Your task to perform on an android device: turn off airplane mode Image 0: 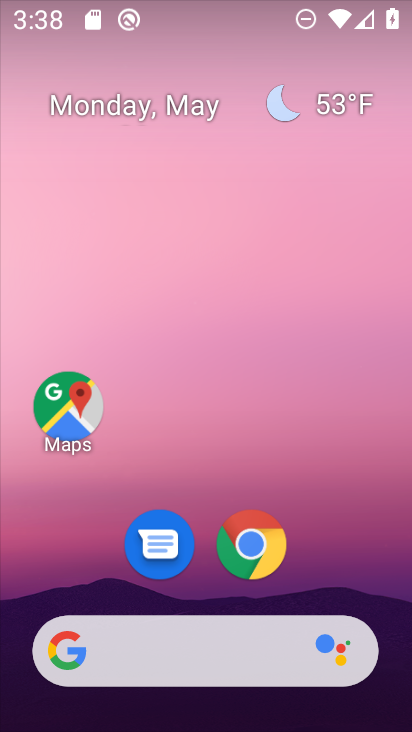
Step 0: drag from (204, 5) to (95, 648)
Your task to perform on an android device: turn off airplane mode Image 1: 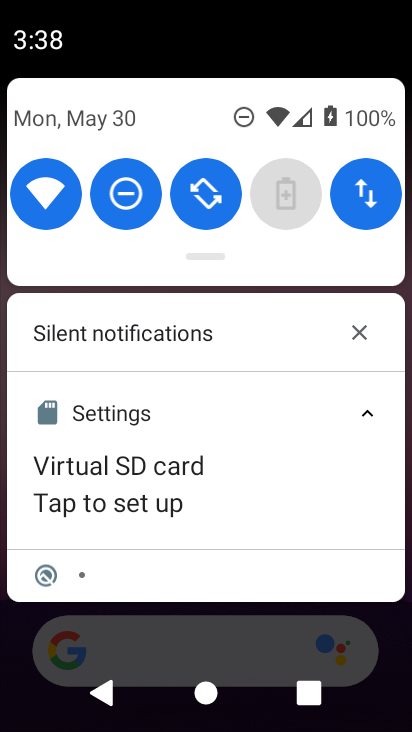
Step 1: drag from (239, 272) to (229, 621)
Your task to perform on an android device: turn off airplane mode Image 2: 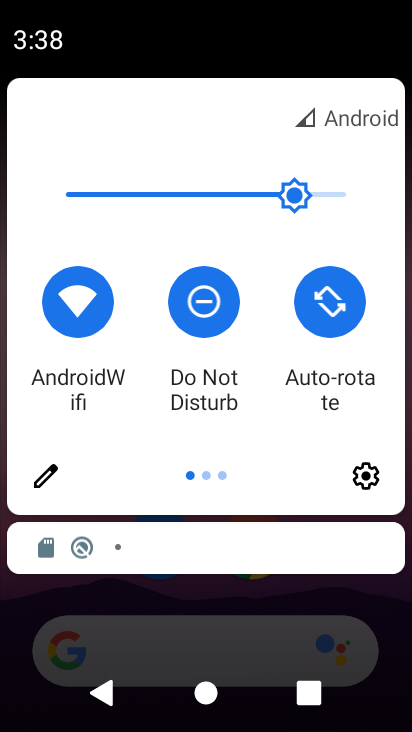
Step 2: click (54, 484)
Your task to perform on an android device: turn off airplane mode Image 3: 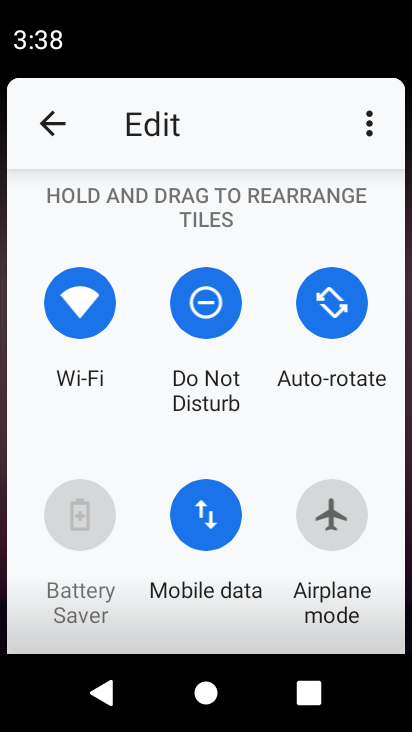
Step 3: task complete